Your task to perform on an android device: Search for Mexican restaurants on Maps Image 0: 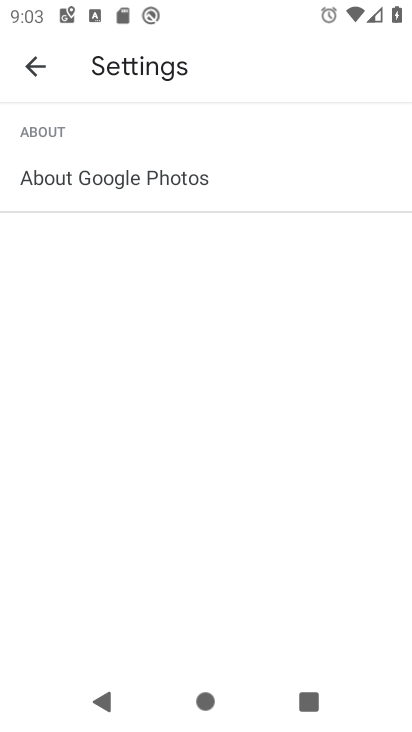
Step 0: press home button
Your task to perform on an android device: Search for Mexican restaurants on Maps Image 1: 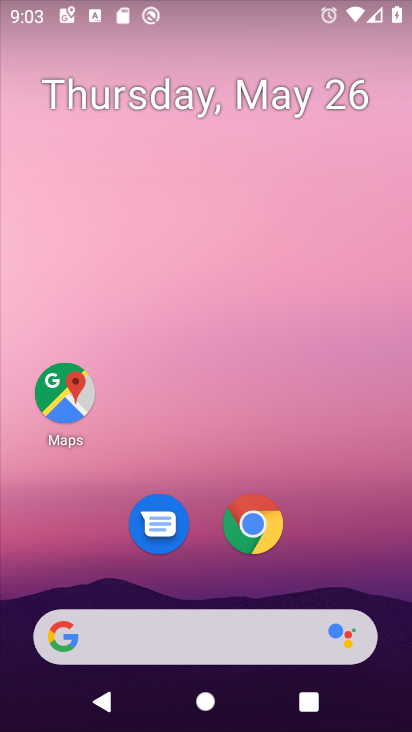
Step 1: click (67, 379)
Your task to perform on an android device: Search for Mexican restaurants on Maps Image 2: 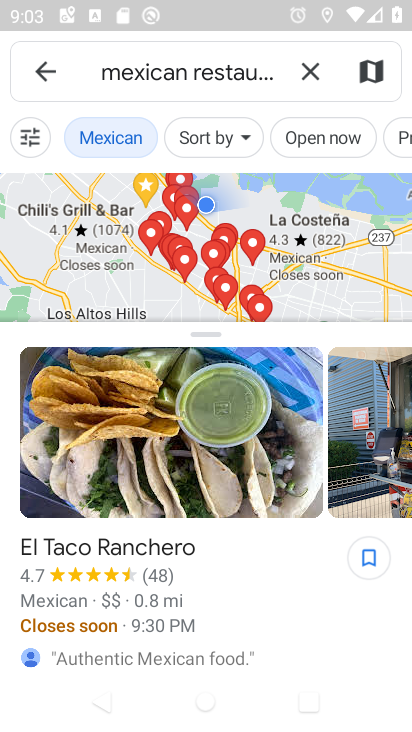
Step 2: task complete